Your task to perform on an android device: open wifi settings Image 0: 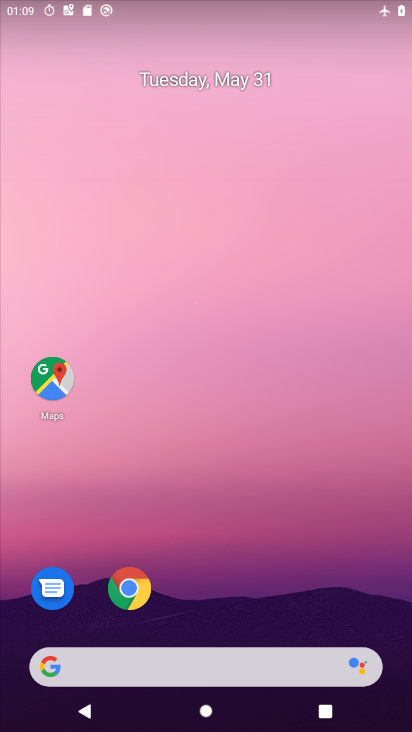
Step 0: drag from (293, 643) to (223, 7)
Your task to perform on an android device: open wifi settings Image 1: 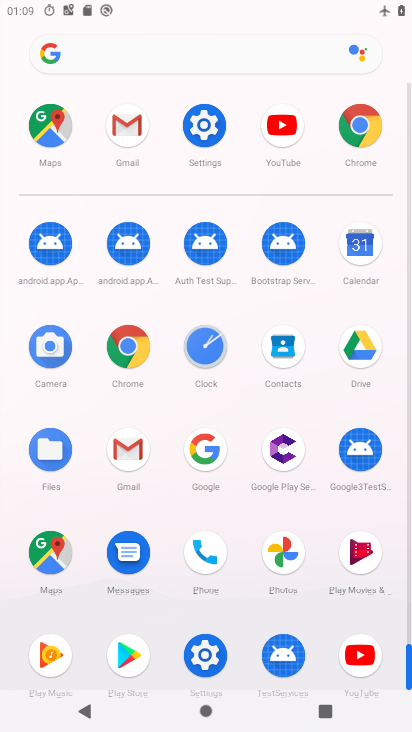
Step 1: click (205, 129)
Your task to perform on an android device: open wifi settings Image 2: 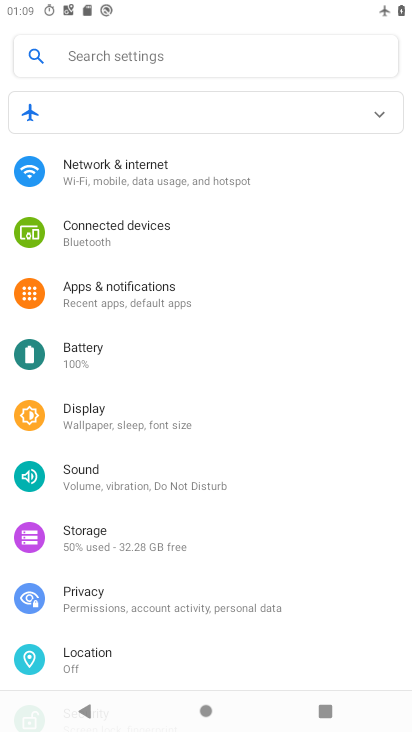
Step 2: click (193, 182)
Your task to perform on an android device: open wifi settings Image 3: 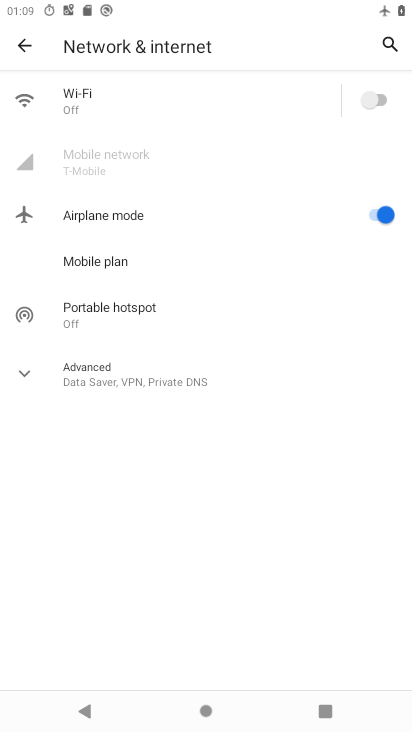
Step 3: click (126, 91)
Your task to perform on an android device: open wifi settings Image 4: 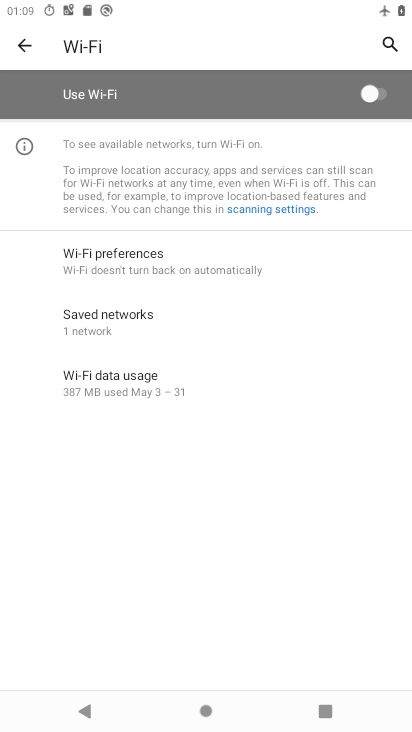
Step 4: task complete